Your task to perform on an android device: open chrome and create a bookmark for the current page Image 0: 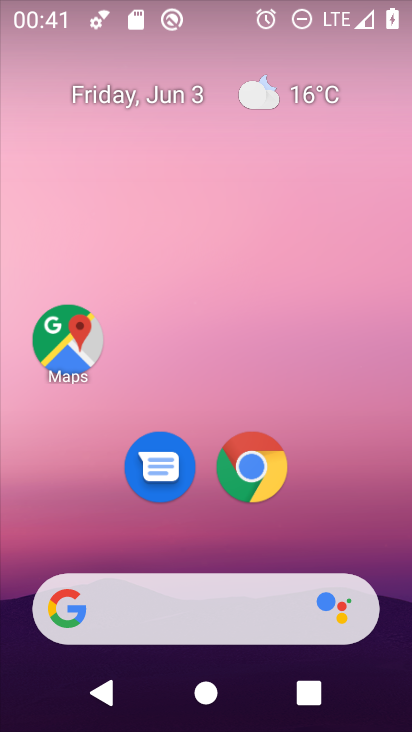
Step 0: click (252, 469)
Your task to perform on an android device: open chrome and create a bookmark for the current page Image 1: 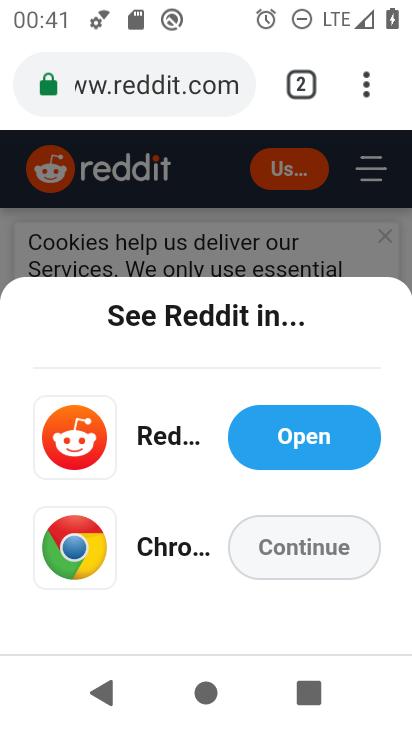
Step 1: click (366, 94)
Your task to perform on an android device: open chrome and create a bookmark for the current page Image 2: 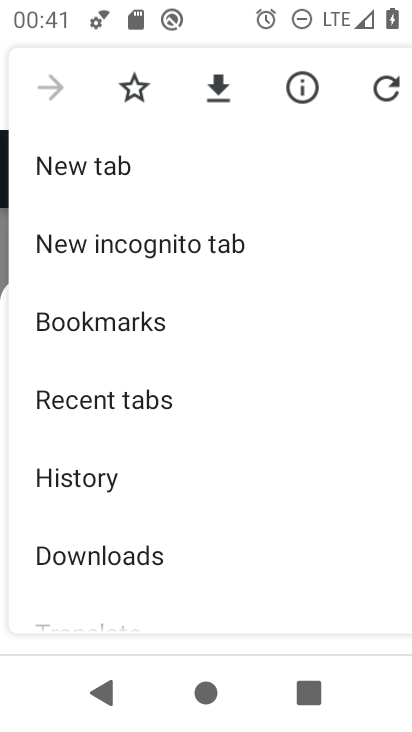
Step 2: click (138, 89)
Your task to perform on an android device: open chrome and create a bookmark for the current page Image 3: 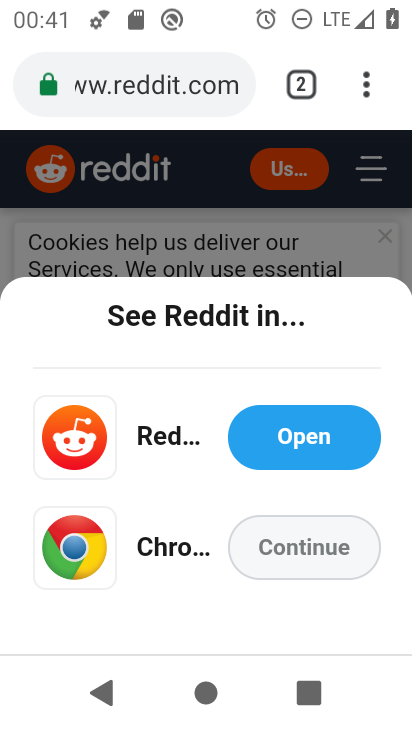
Step 3: task complete